Your task to perform on an android device: turn on wifi Image 0: 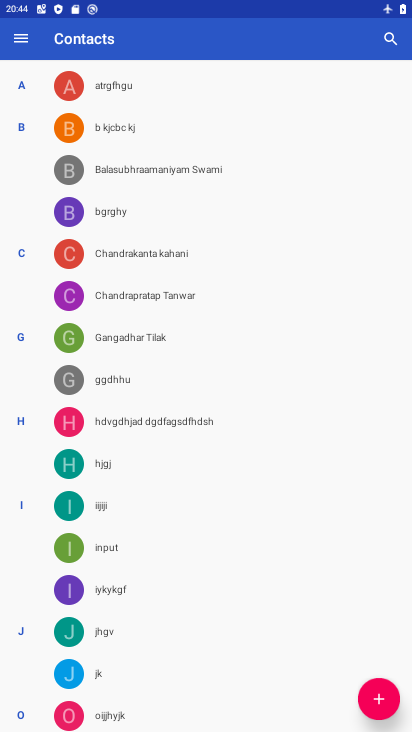
Step 0: press home button
Your task to perform on an android device: turn on wifi Image 1: 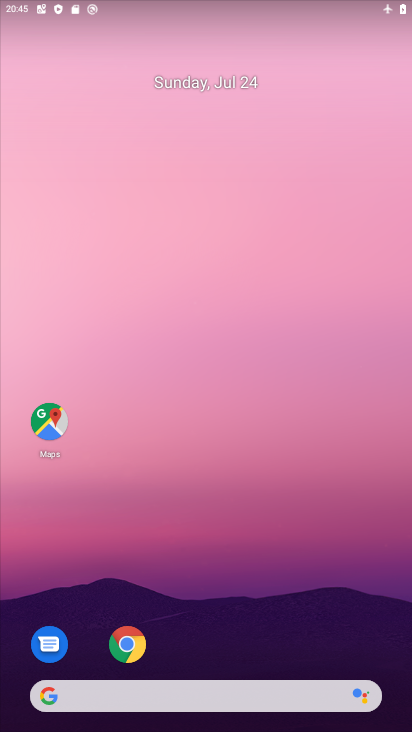
Step 1: drag from (252, 623) to (251, 232)
Your task to perform on an android device: turn on wifi Image 2: 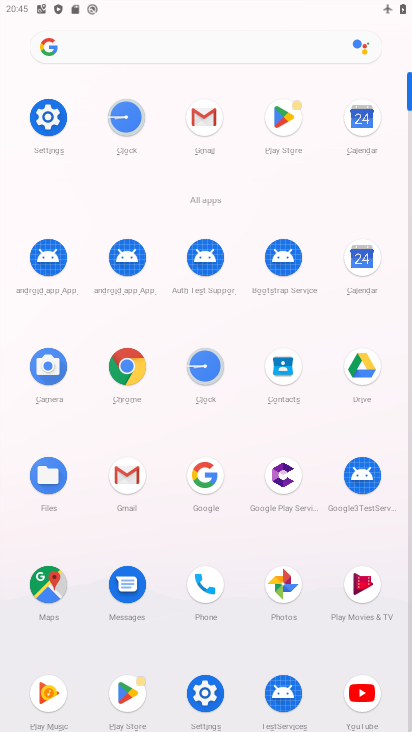
Step 2: click (205, 691)
Your task to perform on an android device: turn on wifi Image 3: 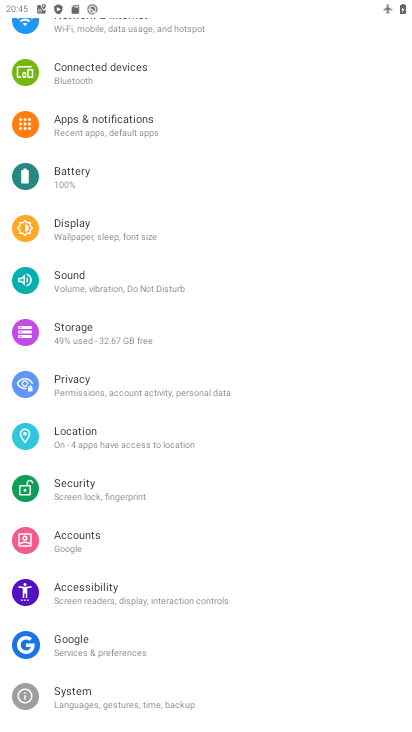
Step 3: drag from (282, 142) to (246, 418)
Your task to perform on an android device: turn on wifi Image 4: 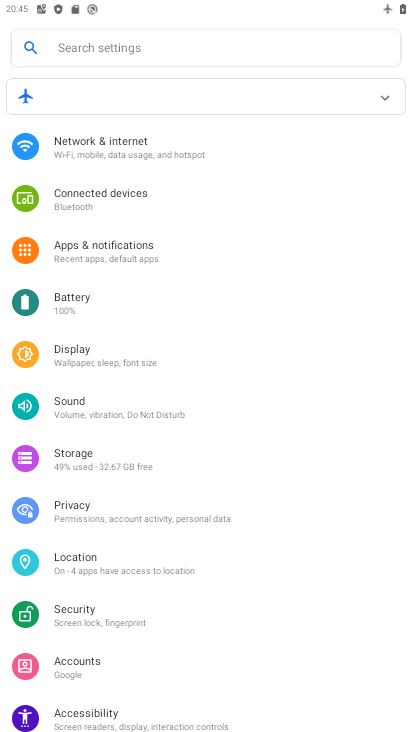
Step 4: click (88, 135)
Your task to perform on an android device: turn on wifi Image 5: 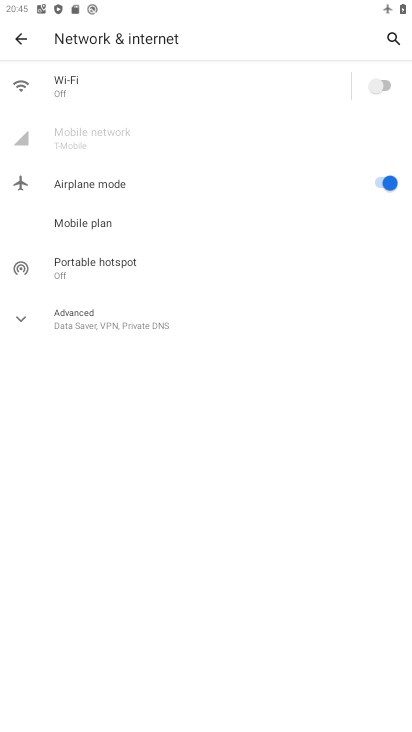
Step 5: click (387, 85)
Your task to perform on an android device: turn on wifi Image 6: 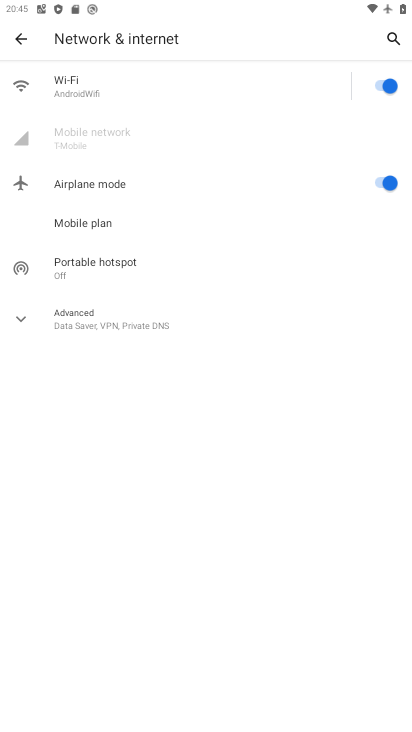
Step 6: task complete